Your task to perform on an android device: Check the news Image 0: 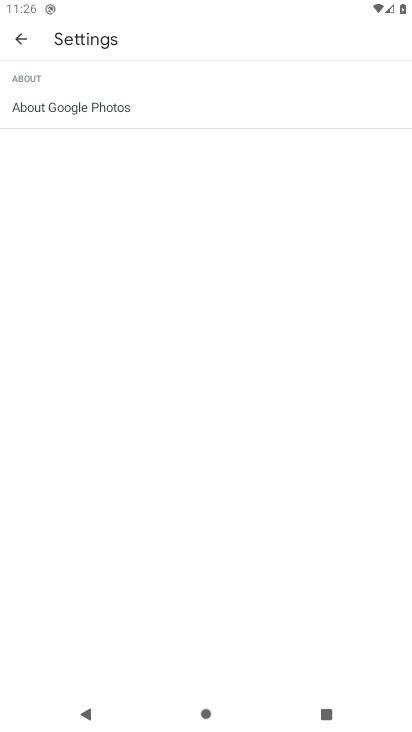
Step 0: press home button
Your task to perform on an android device: Check the news Image 1: 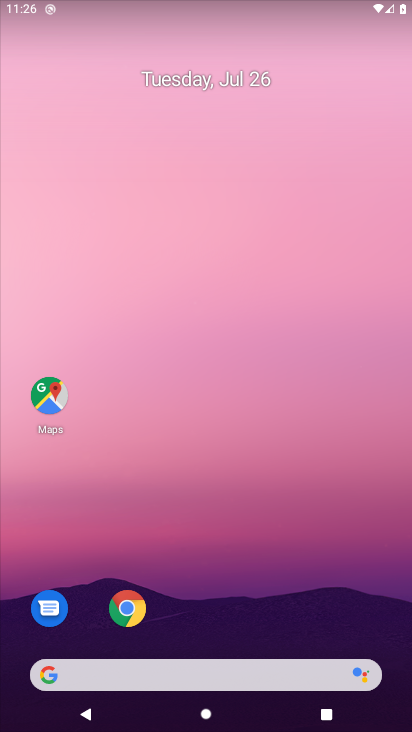
Step 1: click (41, 677)
Your task to perform on an android device: Check the news Image 2: 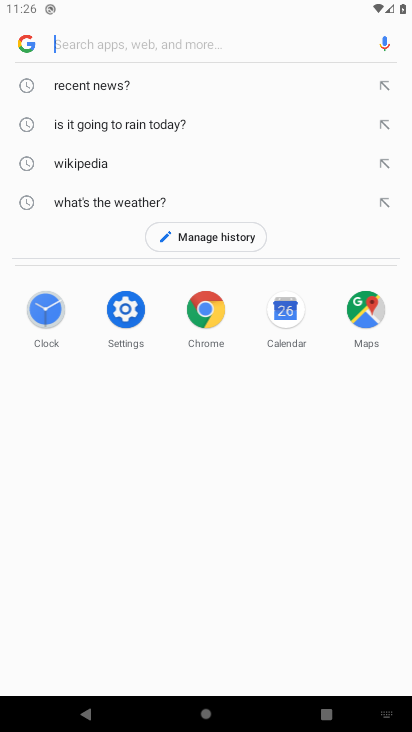
Step 2: type " news"
Your task to perform on an android device: Check the news Image 3: 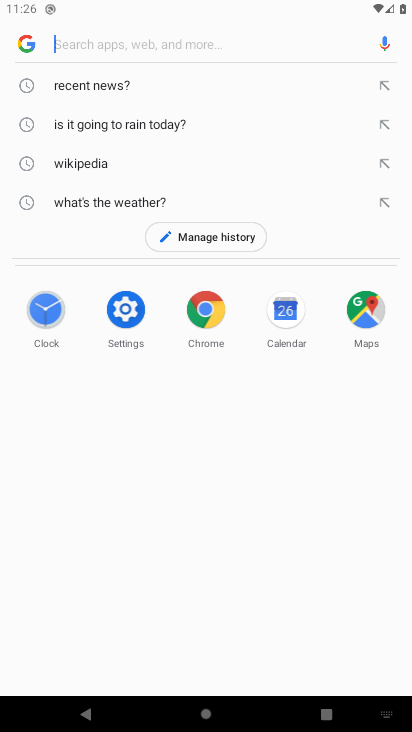
Step 3: click (113, 53)
Your task to perform on an android device: Check the news Image 4: 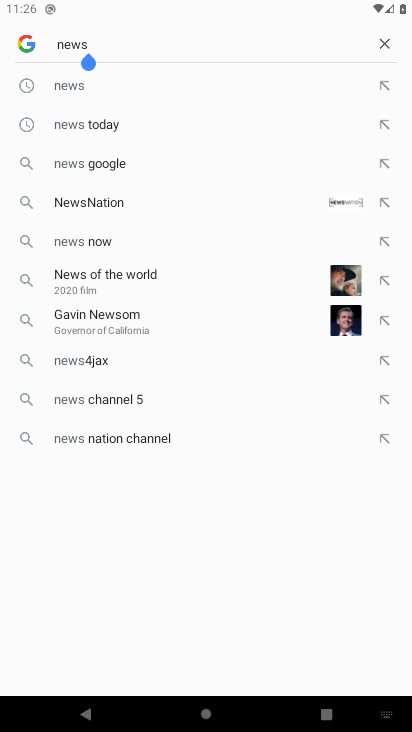
Step 4: press enter
Your task to perform on an android device: Check the news Image 5: 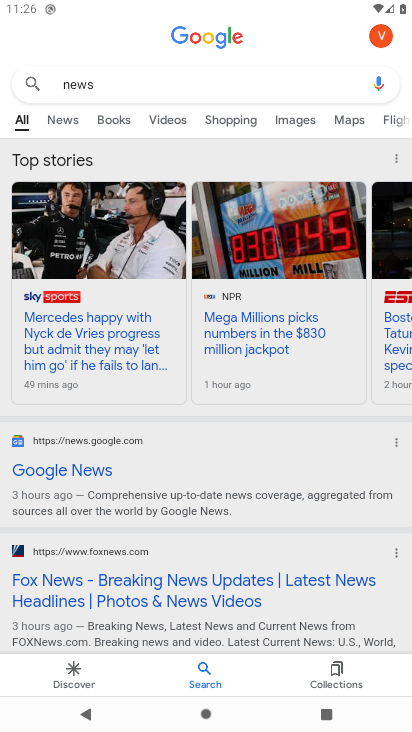
Step 5: task complete